Your task to perform on an android device: turn on data saver in the chrome app Image 0: 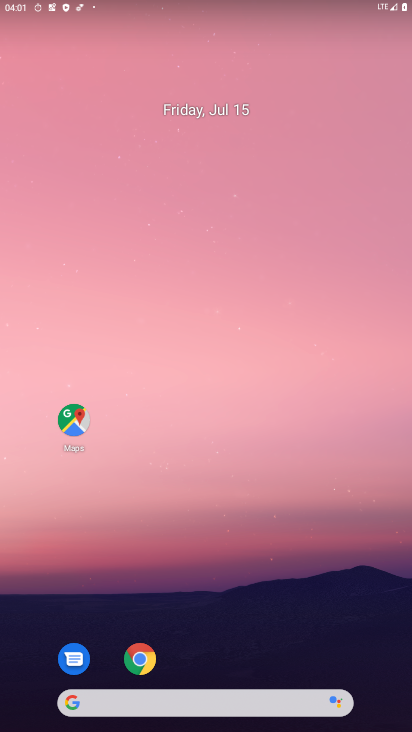
Step 0: click (141, 654)
Your task to perform on an android device: turn on data saver in the chrome app Image 1: 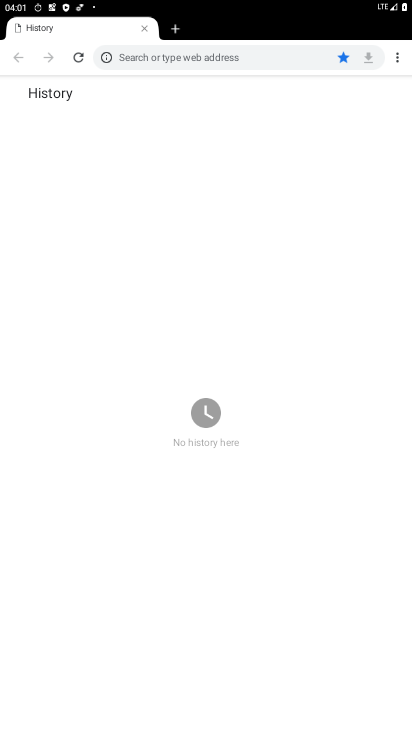
Step 1: click (397, 53)
Your task to perform on an android device: turn on data saver in the chrome app Image 2: 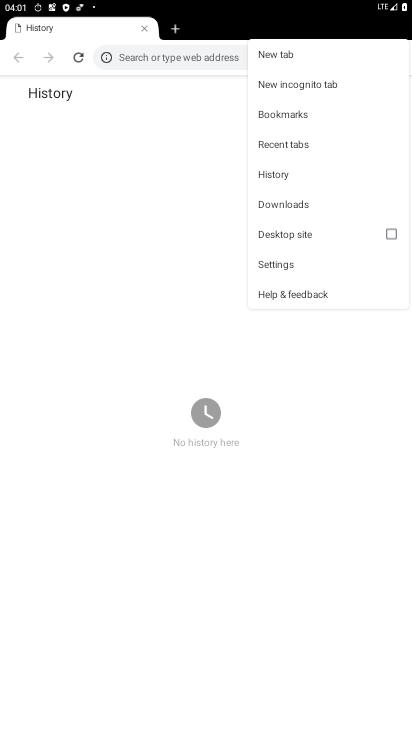
Step 2: click (293, 263)
Your task to perform on an android device: turn on data saver in the chrome app Image 3: 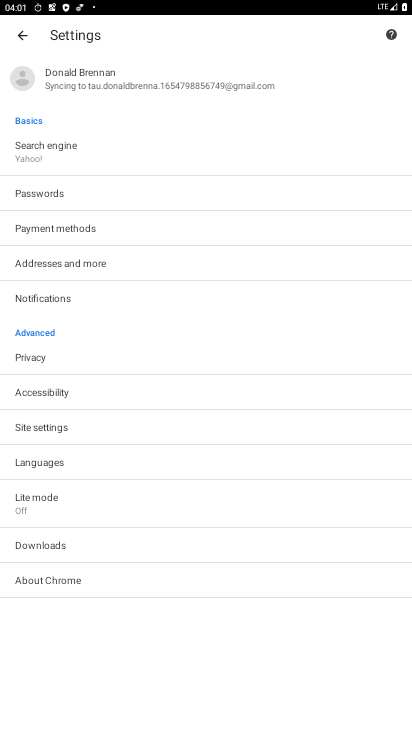
Step 3: click (54, 499)
Your task to perform on an android device: turn on data saver in the chrome app Image 4: 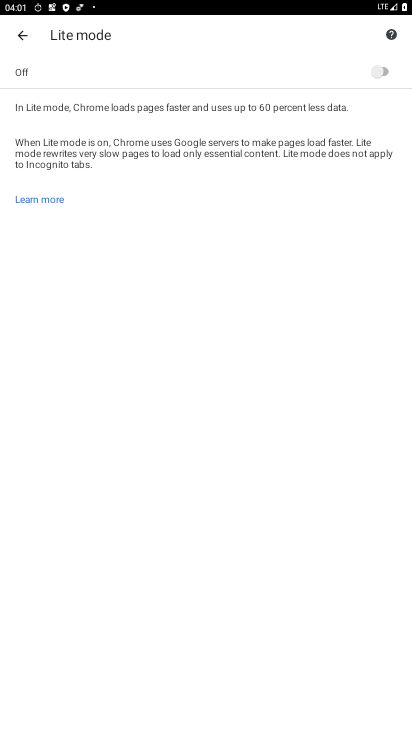
Step 4: click (390, 74)
Your task to perform on an android device: turn on data saver in the chrome app Image 5: 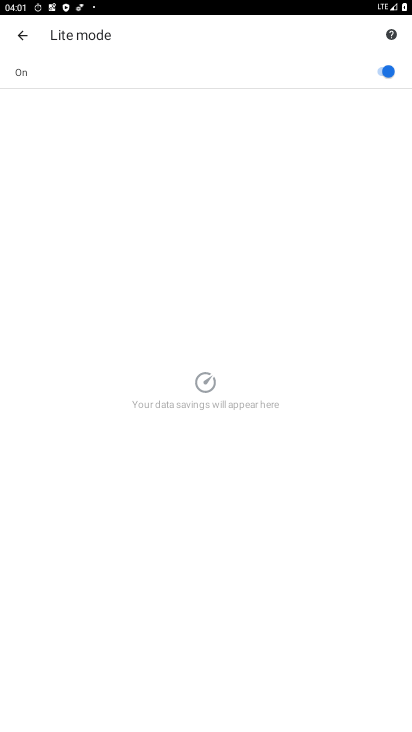
Step 5: task complete